Your task to perform on an android device: Search for seafood restaurants on Google Maps Image 0: 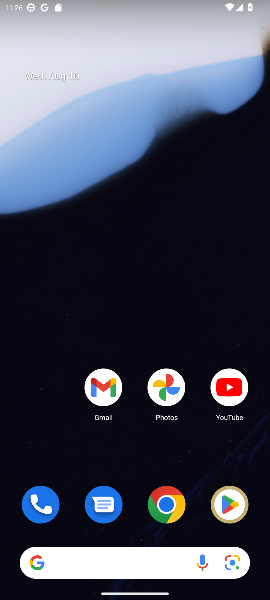
Step 0: press home button
Your task to perform on an android device: Search for seafood restaurants on Google Maps Image 1: 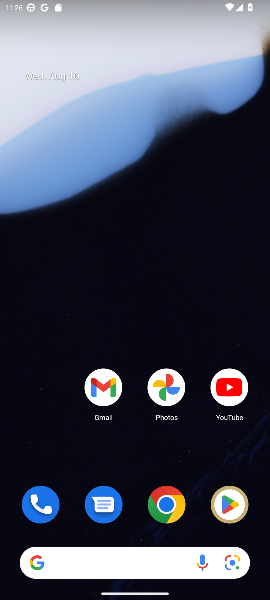
Step 1: drag from (50, 445) to (63, 60)
Your task to perform on an android device: Search for seafood restaurants on Google Maps Image 2: 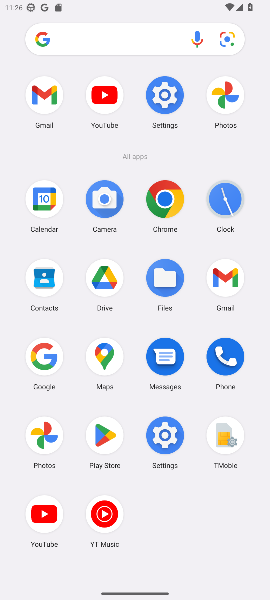
Step 2: click (96, 354)
Your task to perform on an android device: Search for seafood restaurants on Google Maps Image 3: 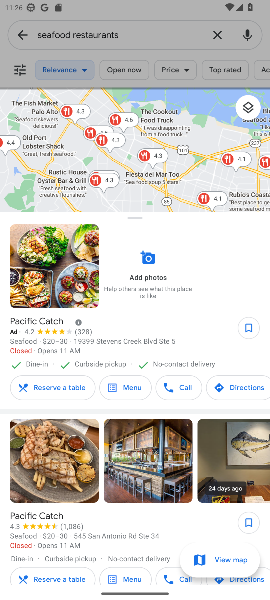
Step 3: task complete